Your task to perform on an android device: turn off improve location accuracy Image 0: 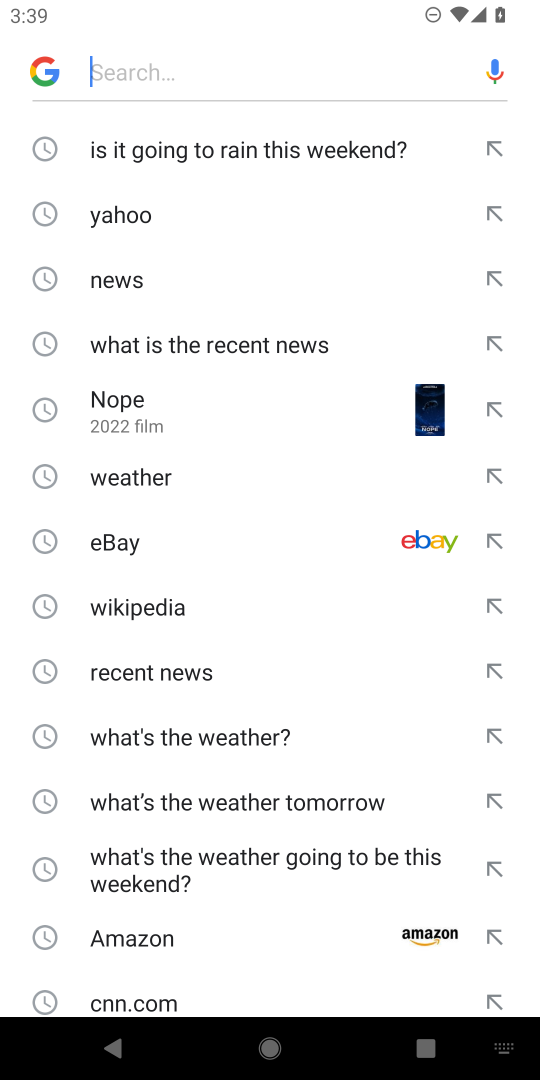
Step 0: press home button
Your task to perform on an android device: turn off improve location accuracy Image 1: 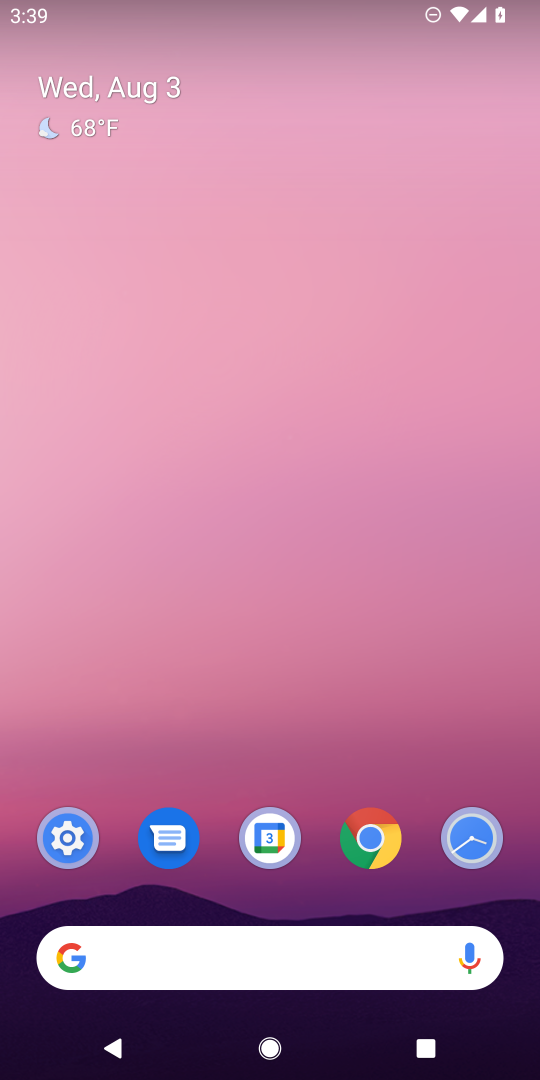
Step 1: click (68, 847)
Your task to perform on an android device: turn off improve location accuracy Image 2: 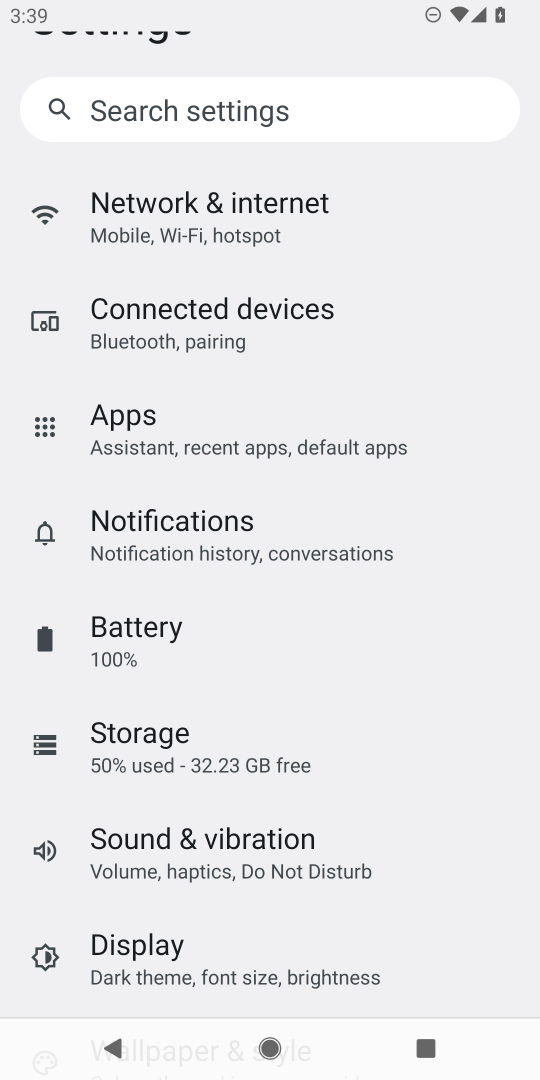
Step 2: drag from (190, 791) to (212, 298)
Your task to perform on an android device: turn off improve location accuracy Image 3: 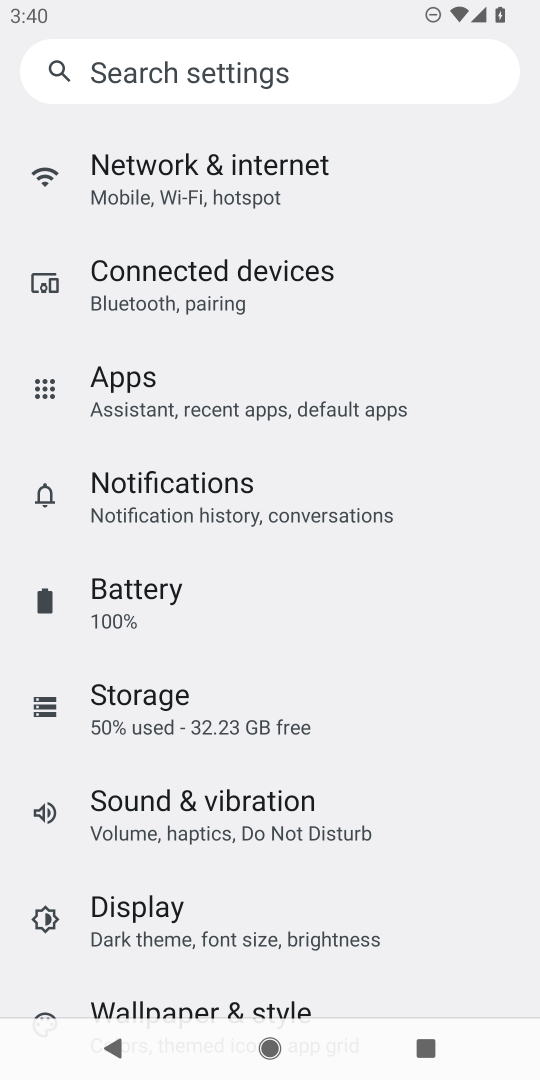
Step 3: drag from (174, 930) to (159, 356)
Your task to perform on an android device: turn off improve location accuracy Image 4: 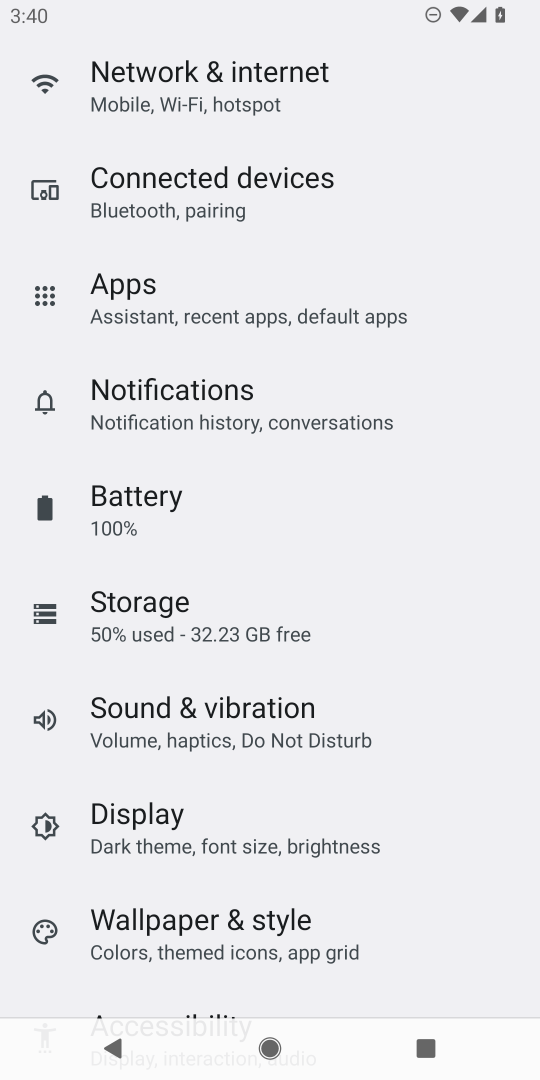
Step 4: drag from (134, 843) to (134, 266)
Your task to perform on an android device: turn off improve location accuracy Image 5: 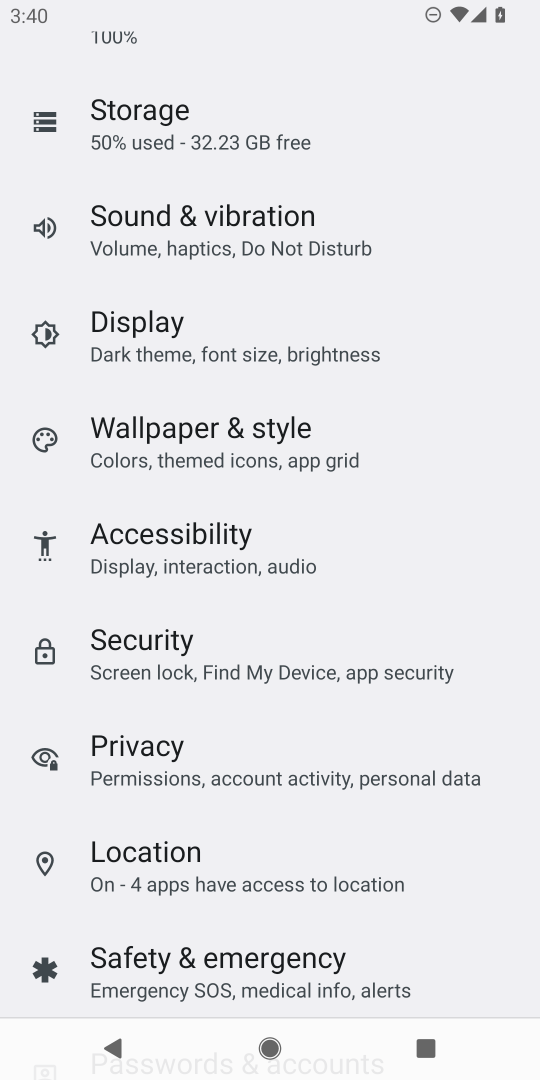
Step 5: click (205, 865)
Your task to perform on an android device: turn off improve location accuracy Image 6: 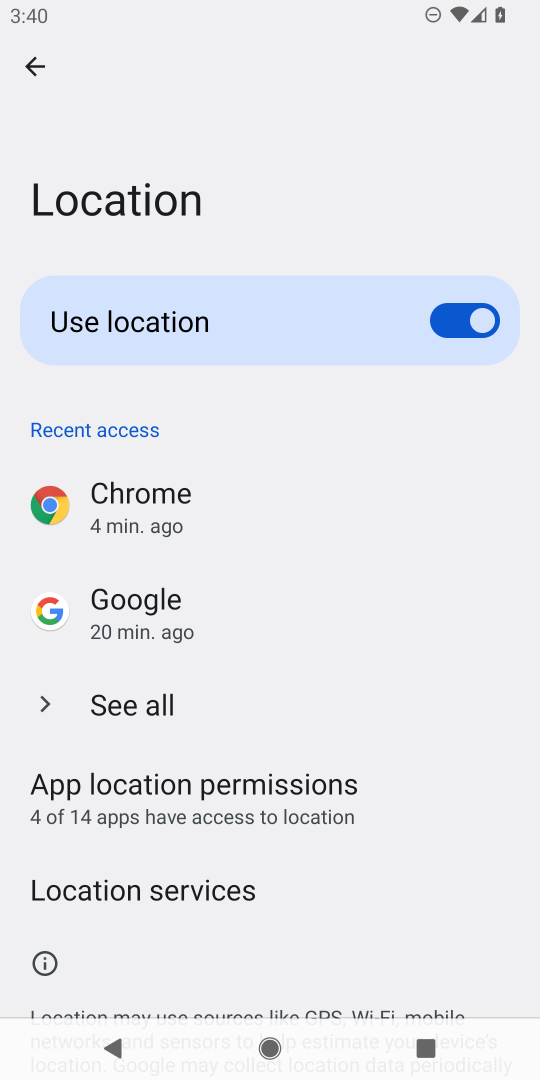
Step 6: click (163, 901)
Your task to perform on an android device: turn off improve location accuracy Image 7: 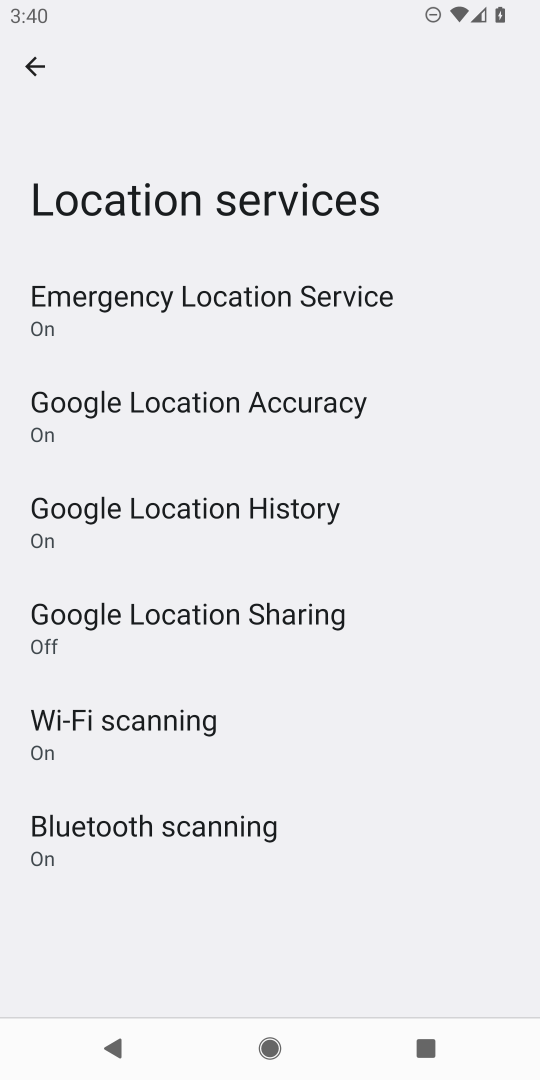
Step 7: click (217, 401)
Your task to perform on an android device: turn off improve location accuracy Image 8: 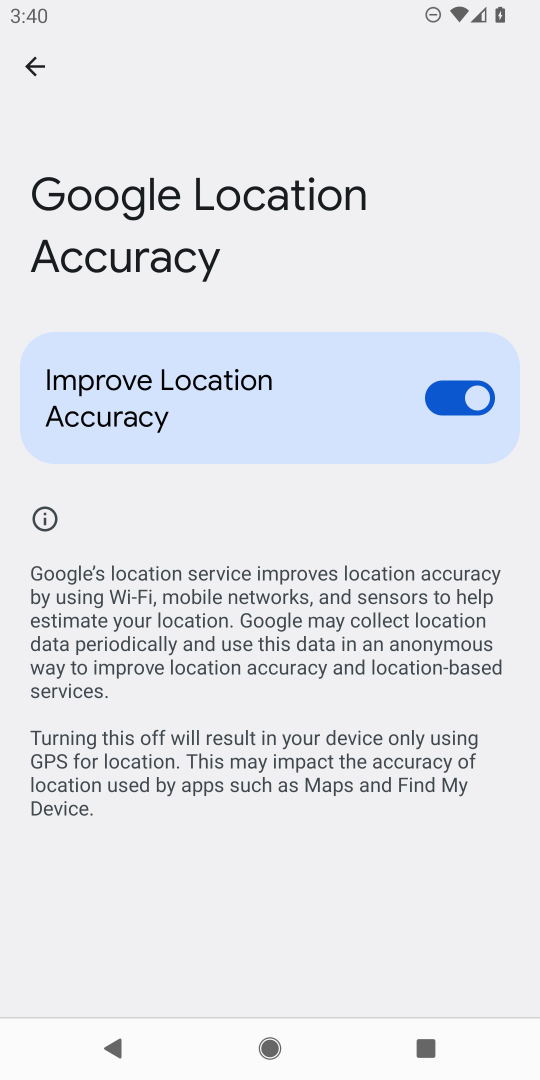
Step 8: click (441, 389)
Your task to perform on an android device: turn off improve location accuracy Image 9: 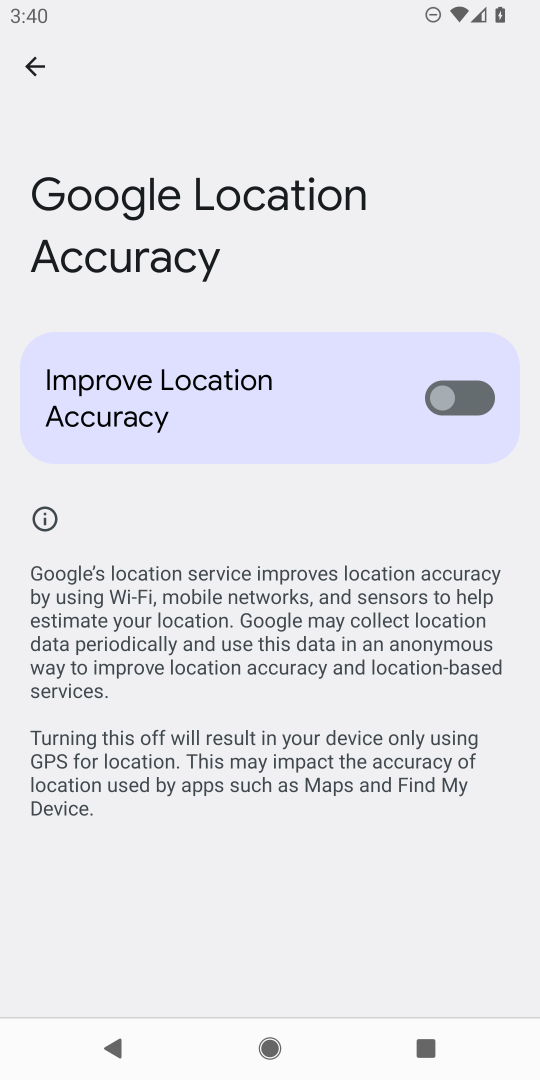
Step 9: task complete